Your task to perform on an android device: turn pop-ups off in chrome Image 0: 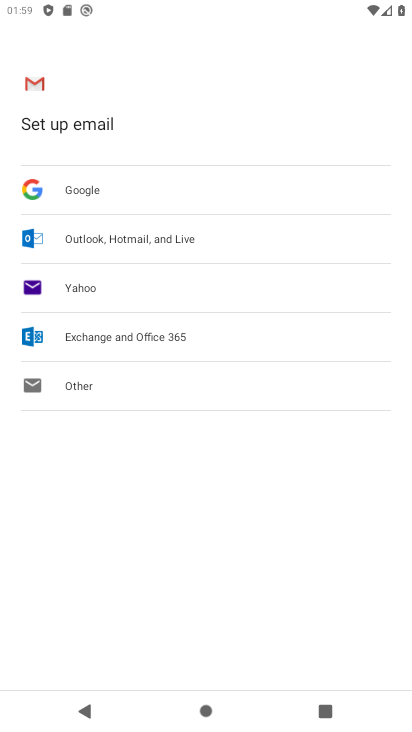
Step 0: press home button
Your task to perform on an android device: turn pop-ups off in chrome Image 1: 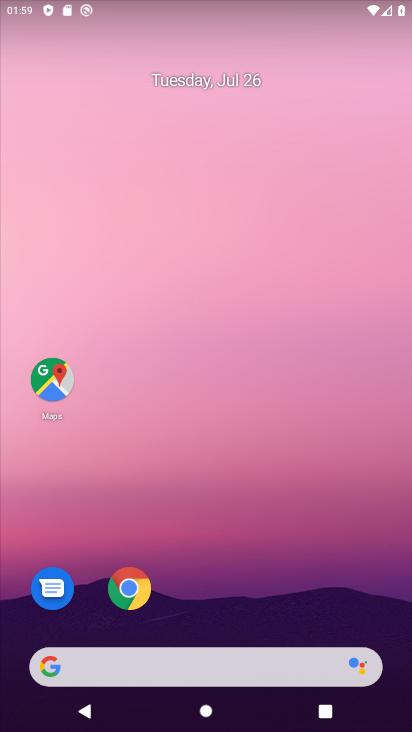
Step 1: click (134, 586)
Your task to perform on an android device: turn pop-ups off in chrome Image 2: 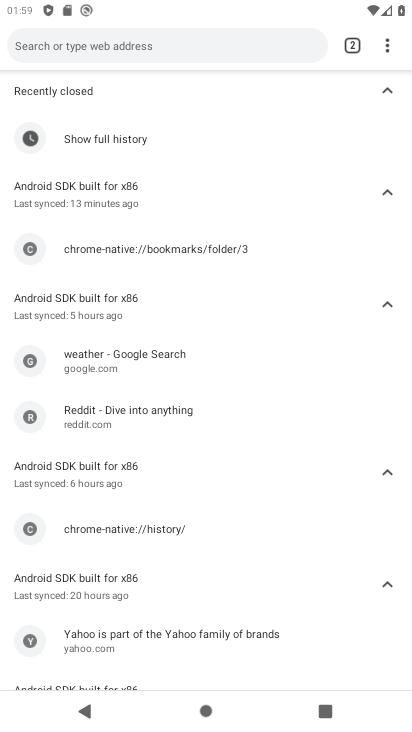
Step 2: click (388, 57)
Your task to perform on an android device: turn pop-ups off in chrome Image 3: 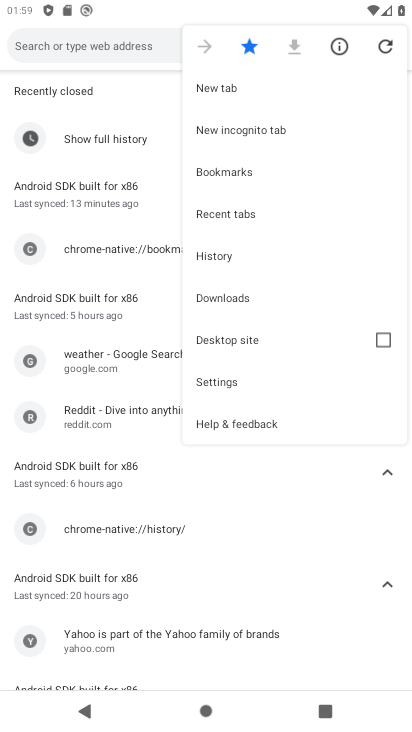
Step 3: click (256, 386)
Your task to perform on an android device: turn pop-ups off in chrome Image 4: 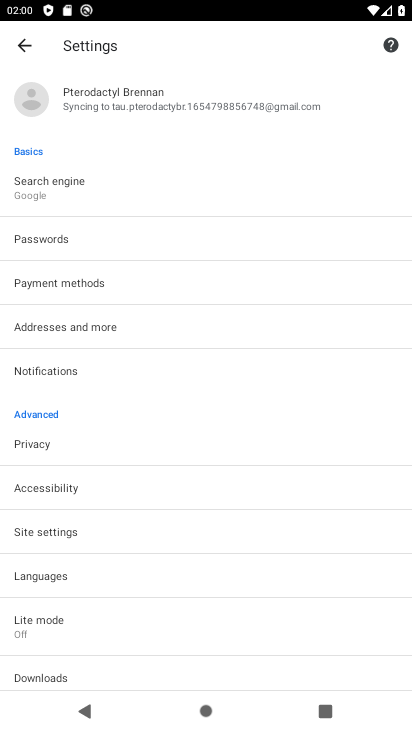
Step 4: click (107, 532)
Your task to perform on an android device: turn pop-ups off in chrome Image 5: 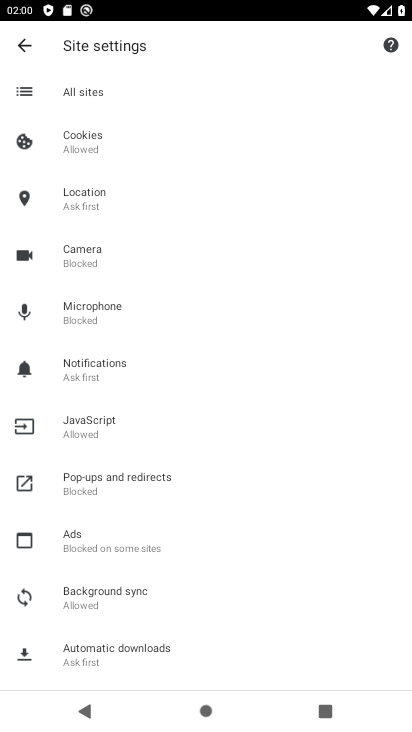
Step 5: click (202, 470)
Your task to perform on an android device: turn pop-ups off in chrome Image 6: 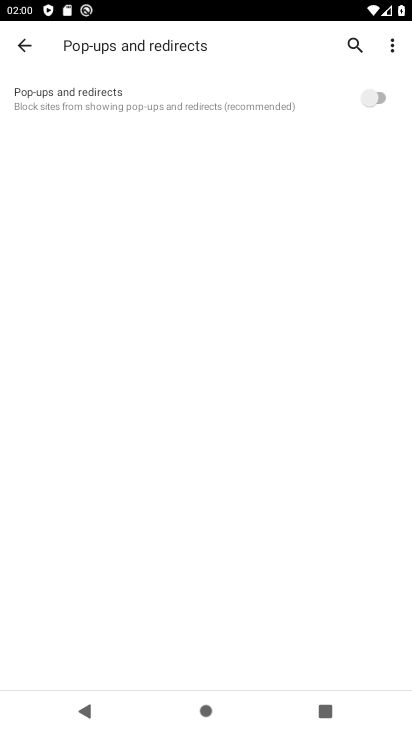
Step 6: click (389, 106)
Your task to perform on an android device: turn pop-ups off in chrome Image 7: 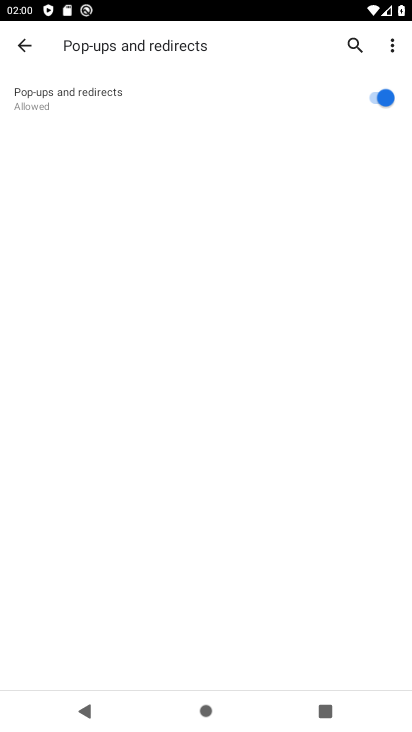
Step 7: task complete